Your task to perform on an android device: Open calendar and show me the first week of next month Image 0: 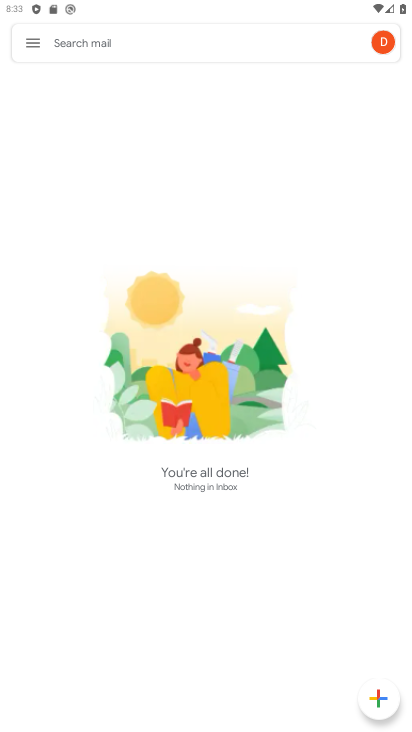
Step 0: press home button
Your task to perform on an android device: Open calendar and show me the first week of next month Image 1: 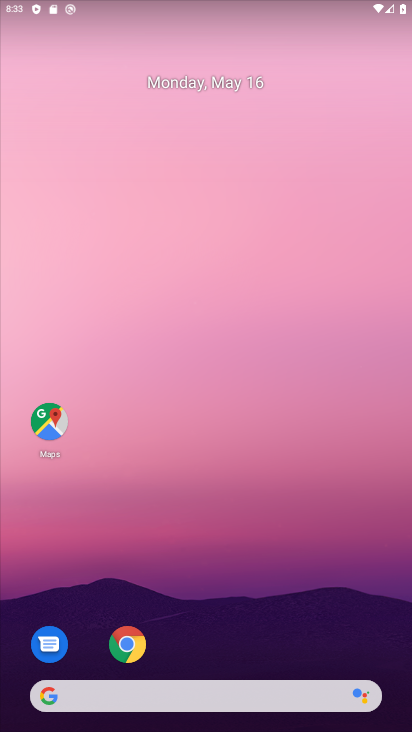
Step 1: drag from (285, 712) to (85, 11)
Your task to perform on an android device: Open calendar and show me the first week of next month Image 2: 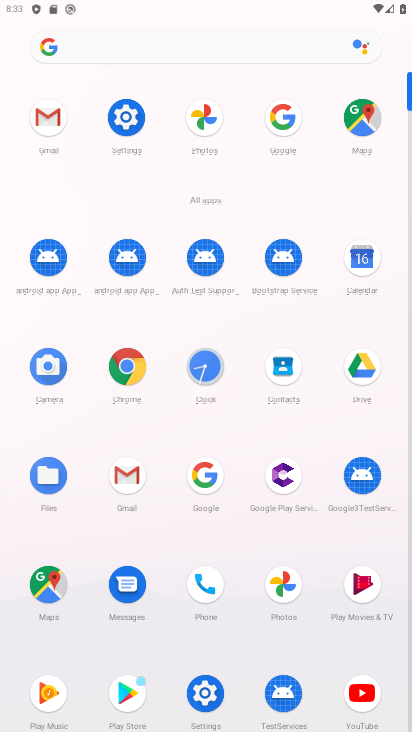
Step 2: click (362, 258)
Your task to perform on an android device: Open calendar and show me the first week of next month Image 3: 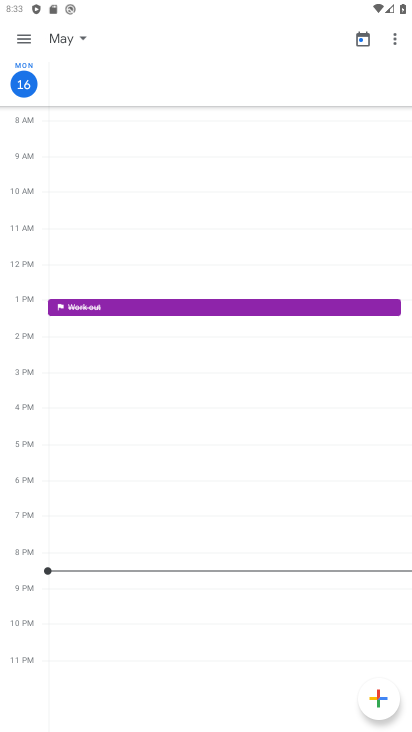
Step 3: click (57, 36)
Your task to perform on an android device: Open calendar and show me the first week of next month Image 4: 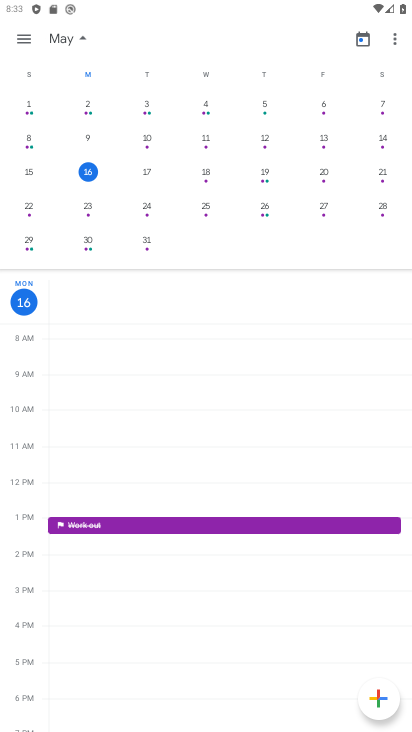
Step 4: task complete